Your task to perform on an android device: Go to sound settings Image 0: 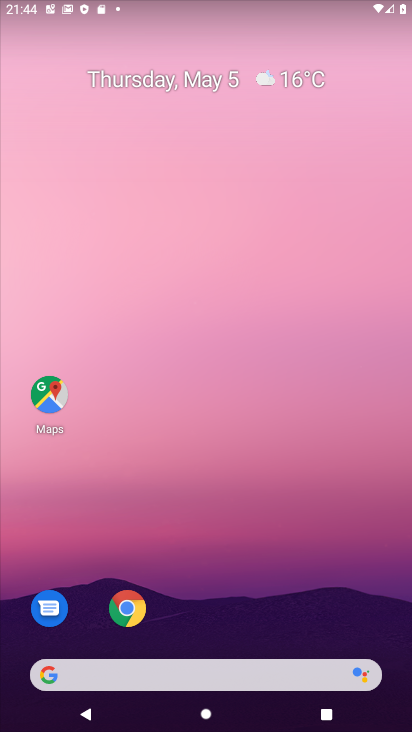
Step 0: drag from (246, 615) to (208, 41)
Your task to perform on an android device: Go to sound settings Image 1: 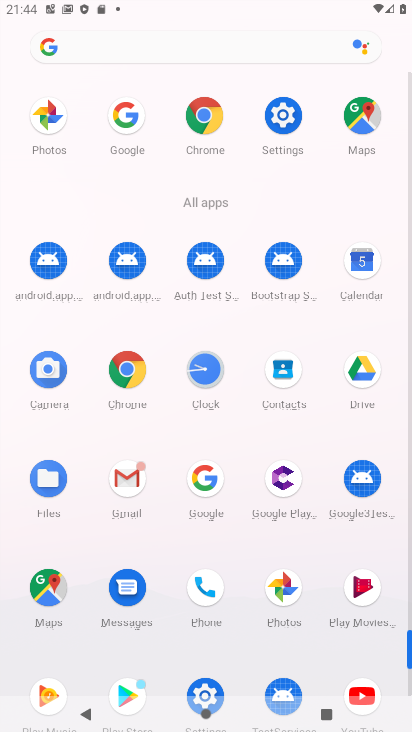
Step 1: drag from (269, 290) to (265, 221)
Your task to perform on an android device: Go to sound settings Image 2: 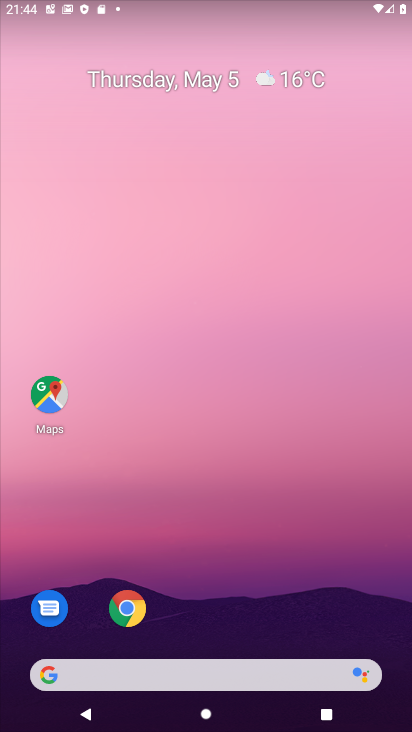
Step 2: drag from (213, 622) to (242, 66)
Your task to perform on an android device: Go to sound settings Image 3: 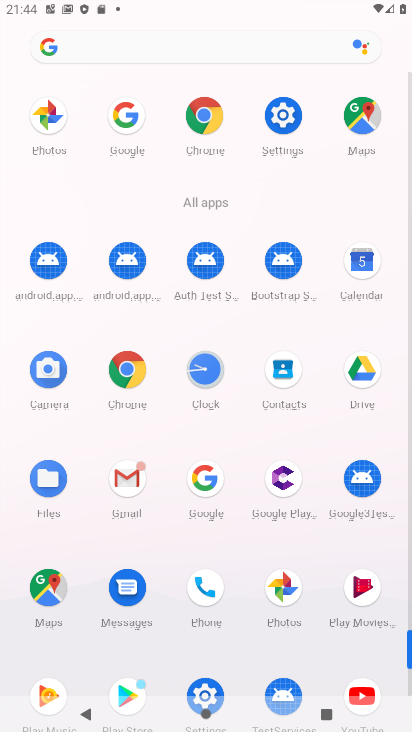
Step 3: click (278, 107)
Your task to perform on an android device: Go to sound settings Image 4: 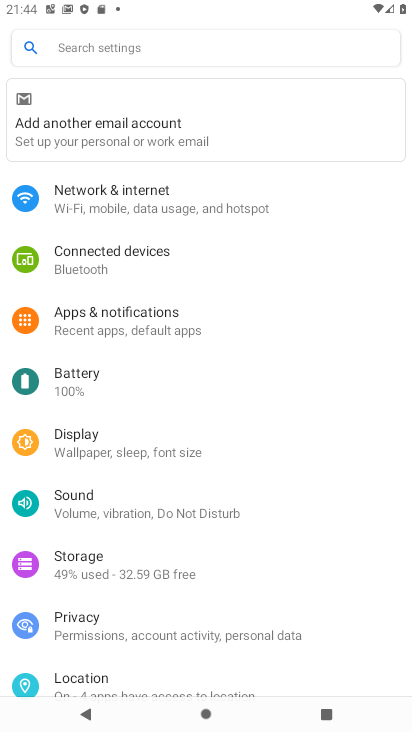
Step 4: click (78, 498)
Your task to perform on an android device: Go to sound settings Image 5: 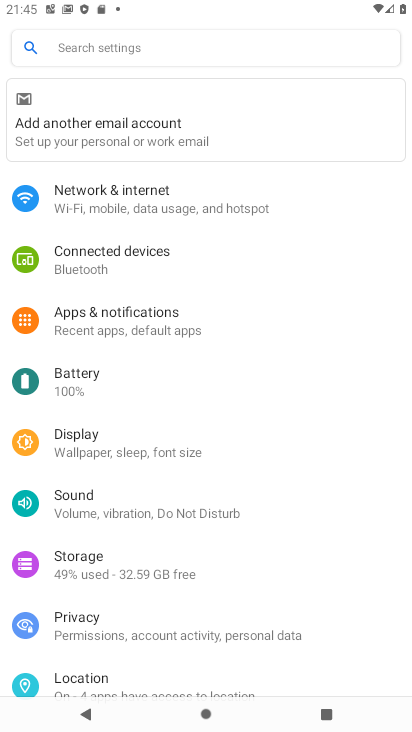
Step 5: click (72, 501)
Your task to perform on an android device: Go to sound settings Image 6: 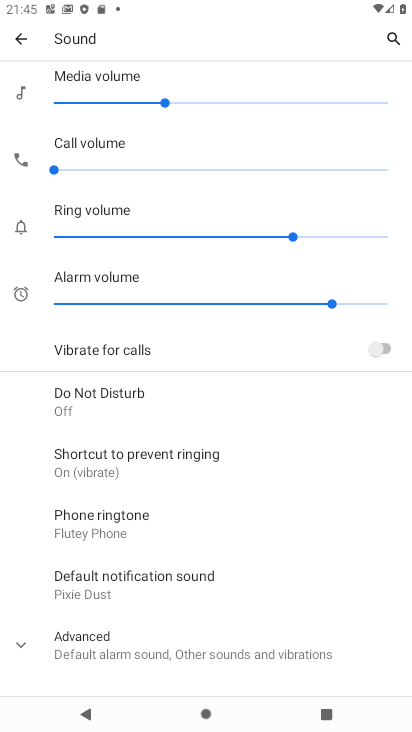
Step 6: task complete